Your task to perform on an android device: Open Google Chrome Image 0: 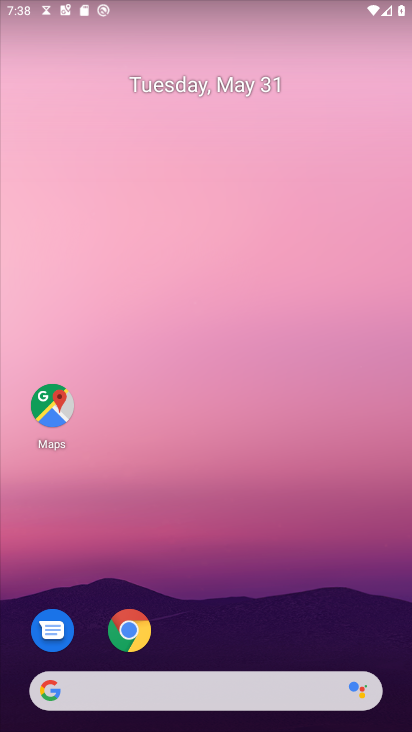
Step 0: click (129, 628)
Your task to perform on an android device: Open Google Chrome Image 1: 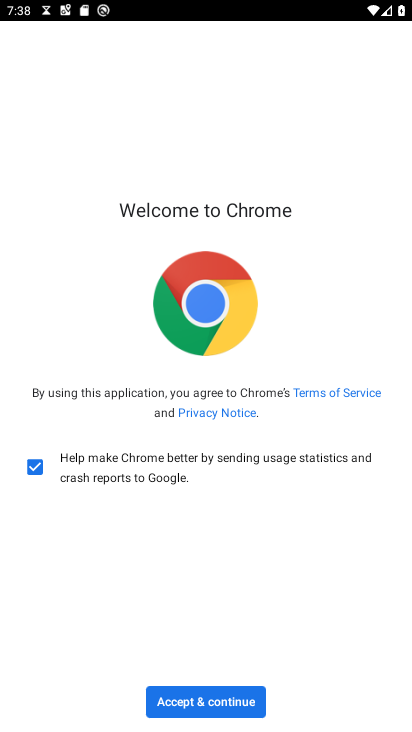
Step 1: click (214, 701)
Your task to perform on an android device: Open Google Chrome Image 2: 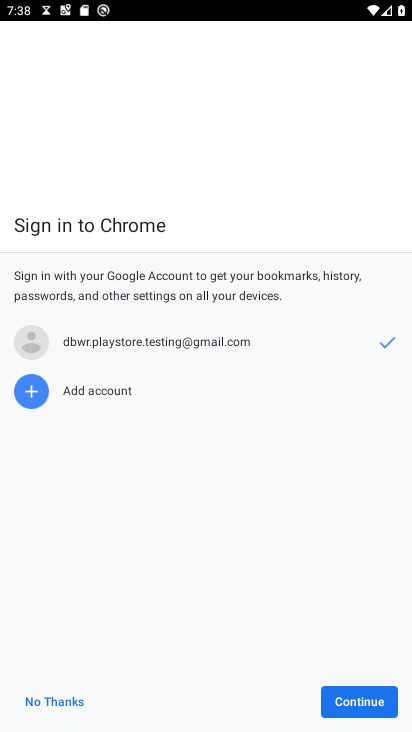
Step 2: click (357, 698)
Your task to perform on an android device: Open Google Chrome Image 3: 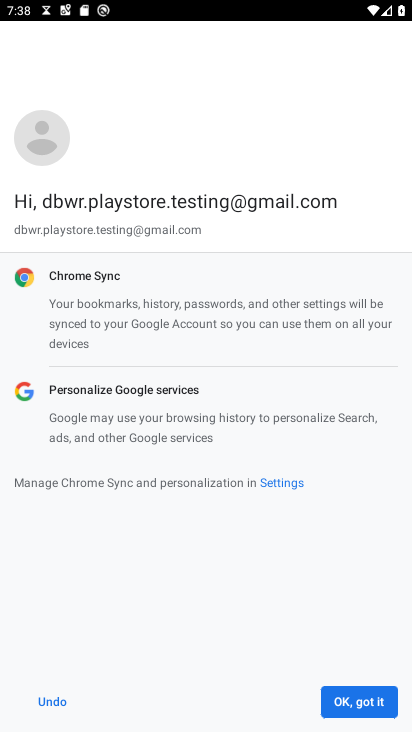
Step 3: click (357, 703)
Your task to perform on an android device: Open Google Chrome Image 4: 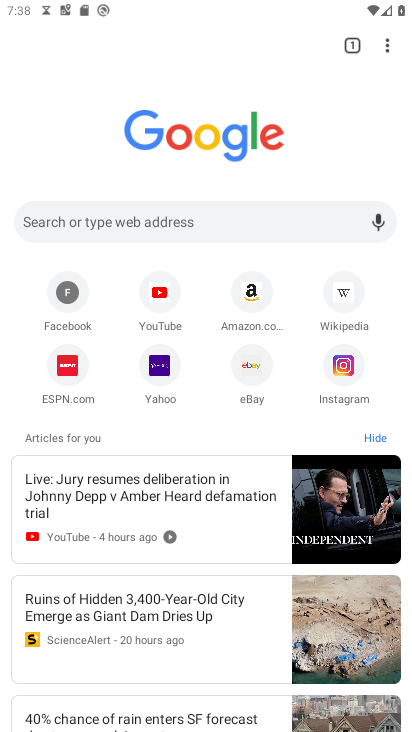
Step 4: task complete